Your task to perform on an android device: Open network settings Image 0: 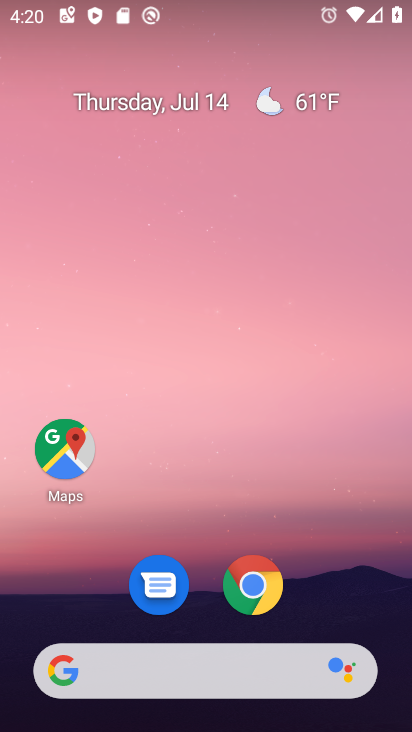
Step 0: drag from (338, 523) to (305, 67)
Your task to perform on an android device: Open network settings Image 1: 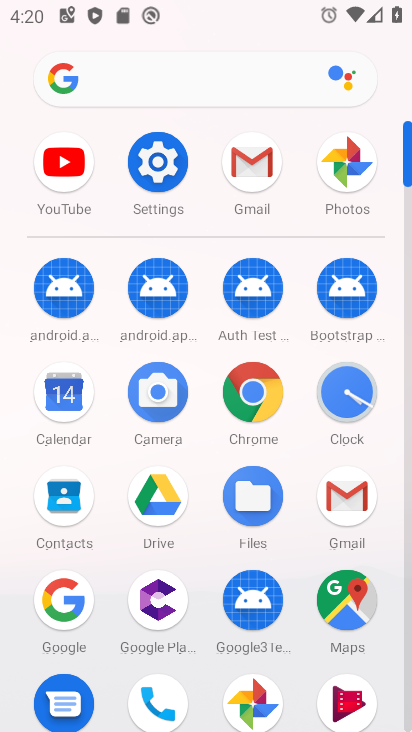
Step 1: click (155, 163)
Your task to perform on an android device: Open network settings Image 2: 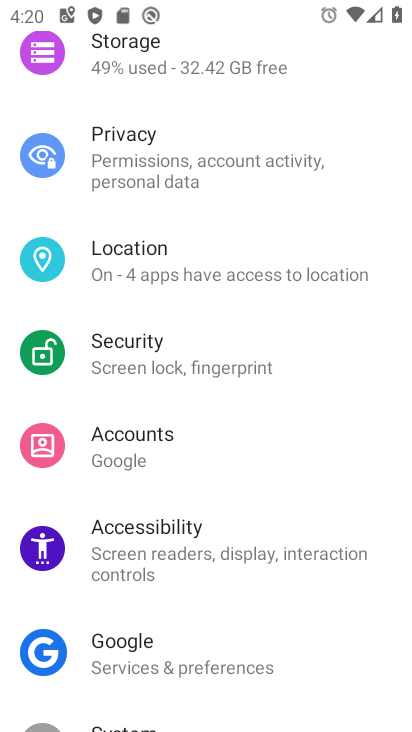
Step 2: drag from (258, 145) to (252, 625)
Your task to perform on an android device: Open network settings Image 3: 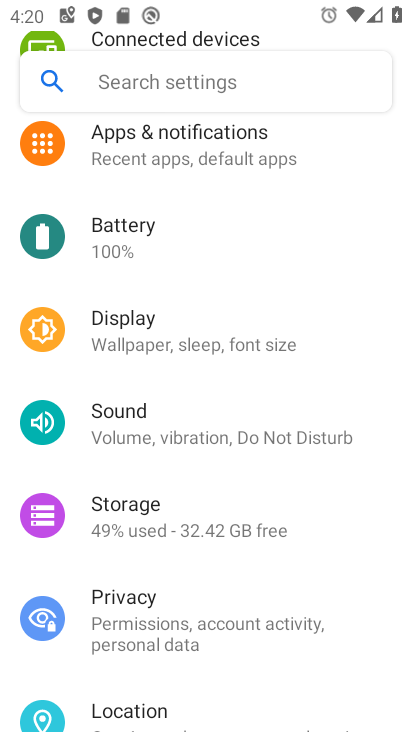
Step 3: drag from (254, 190) to (233, 644)
Your task to perform on an android device: Open network settings Image 4: 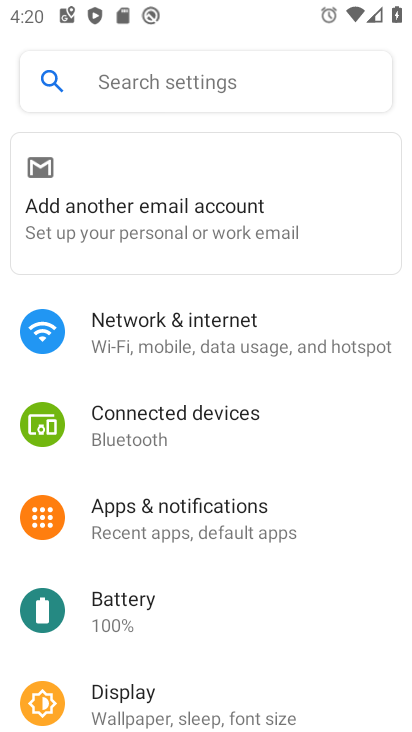
Step 4: click (245, 340)
Your task to perform on an android device: Open network settings Image 5: 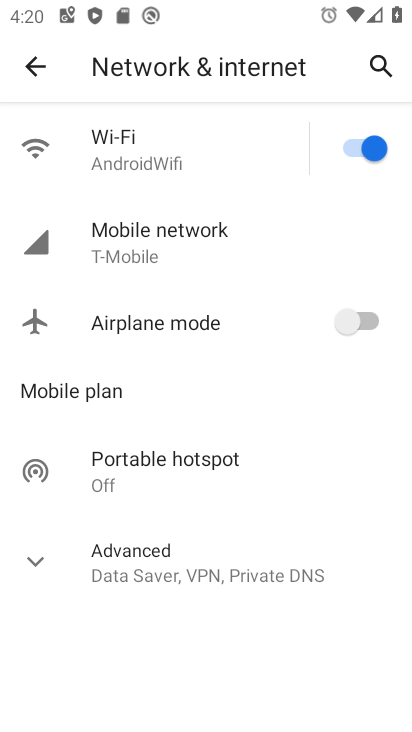
Step 5: task complete